Your task to perform on an android device: Open settings on Google Maps Image 0: 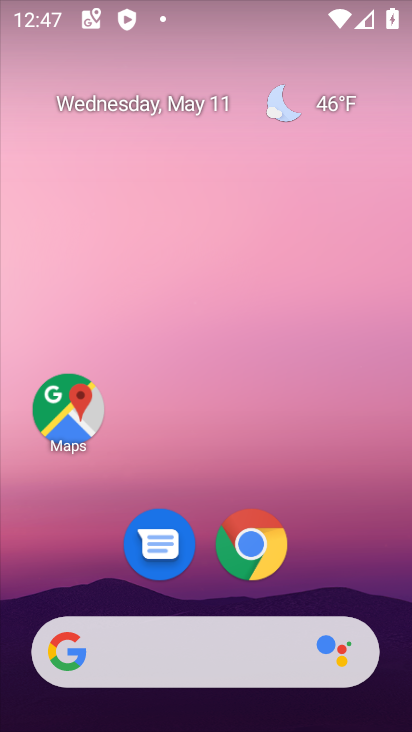
Step 0: click (65, 407)
Your task to perform on an android device: Open settings on Google Maps Image 1: 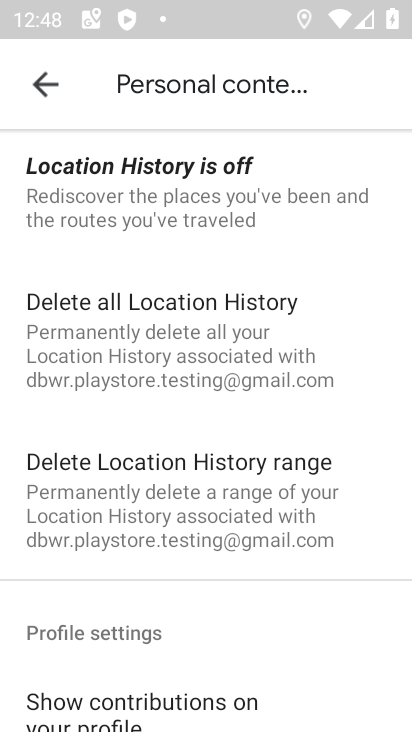
Step 1: task complete